Your task to perform on an android device: toggle improve location accuracy Image 0: 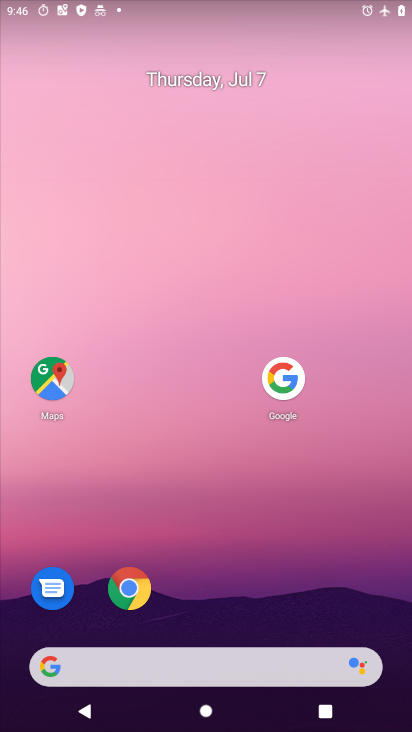
Step 0: drag from (126, 668) to (372, 4)
Your task to perform on an android device: toggle improve location accuracy Image 1: 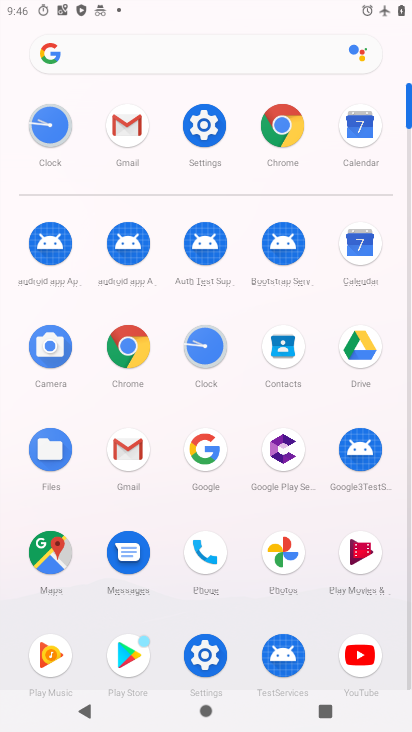
Step 1: click (211, 128)
Your task to perform on an android device: toggle improve location accuracy Image 2: 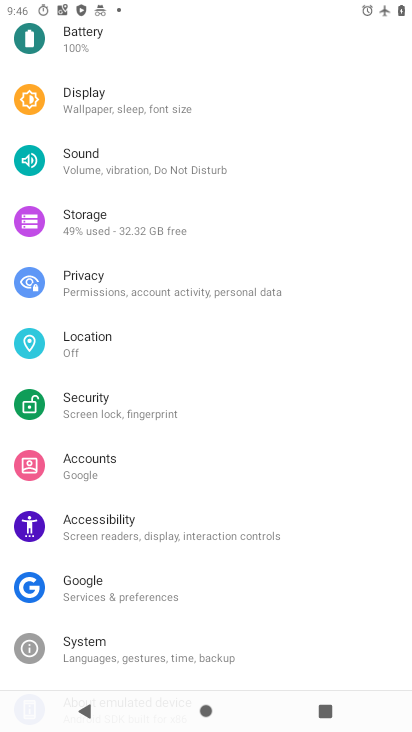
Step 2: click (95, 342)
Your task to perform on an android device: toggle improve location accuracy Image 3: 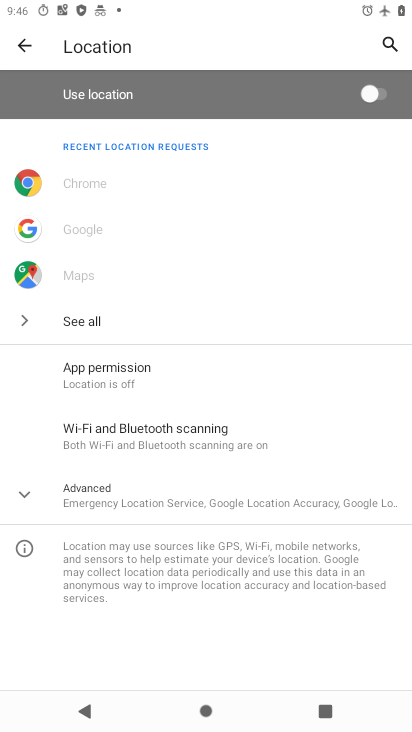
Step 3: click (170, 502)
Your task to perform on an android device: toggle improve location accuracy Image 4: 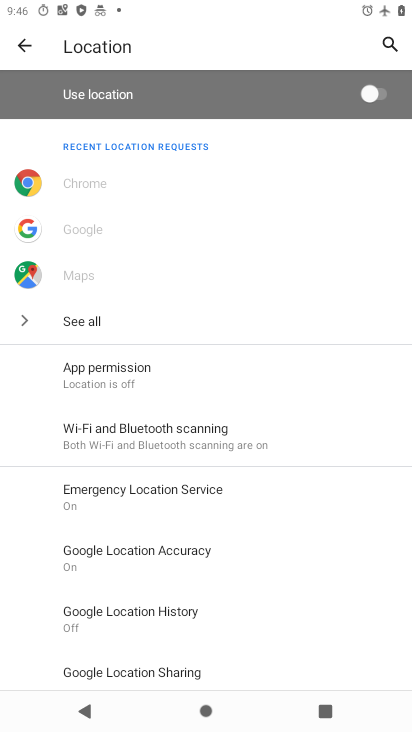
Step 4: click (157, 548)
Your task to perform on an android device: toggle improve location accuracy Image 5: 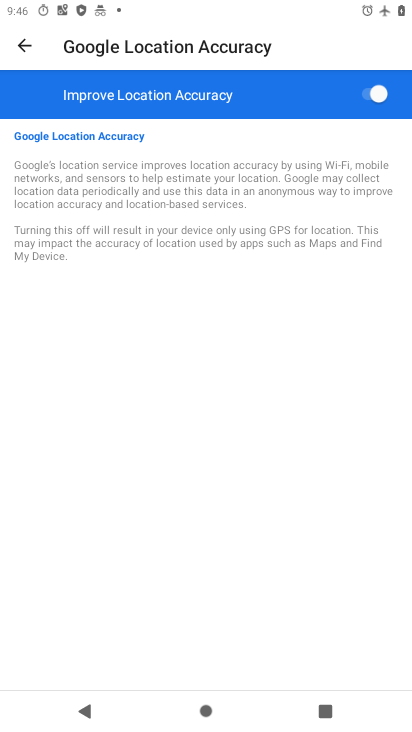
Step 5: click (367, 91)
Your task to perform on an android device: toggle improve location accuracy Image 6: 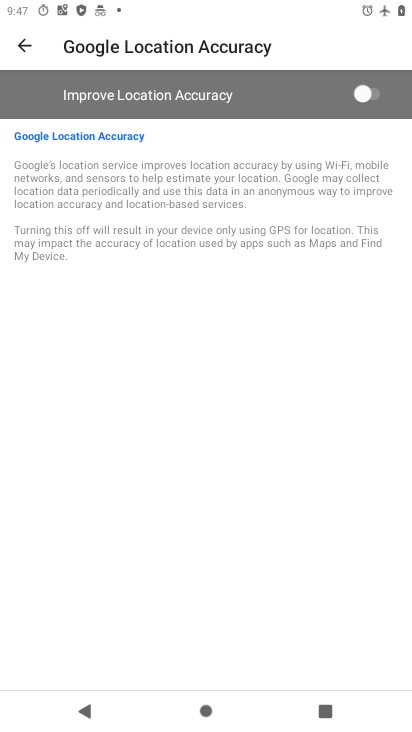
Step 6: task complete